Your task to perform on an android device: open app "The Home Depot" Image 0: 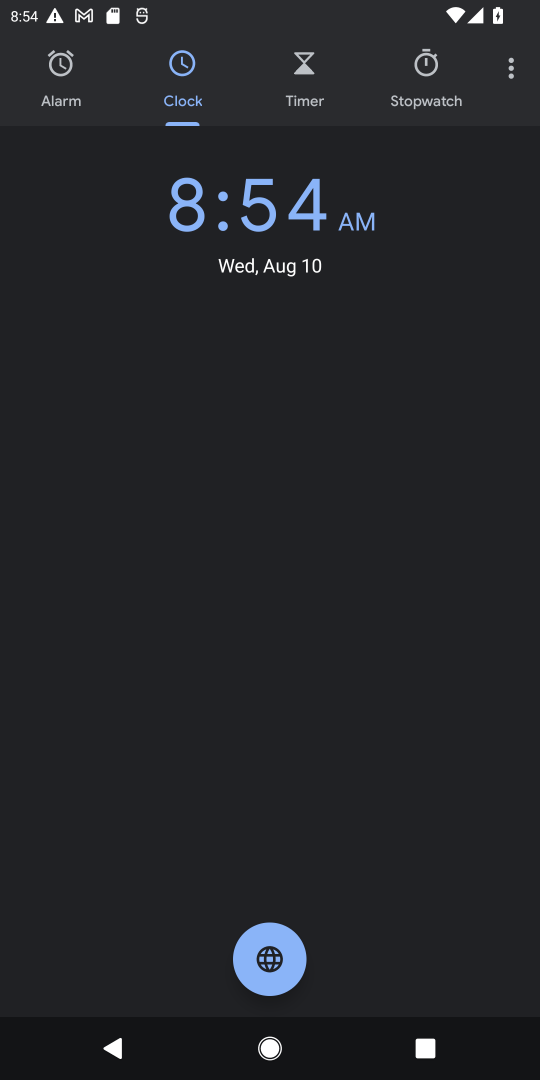
Step 0: press home button
Your task to perform on an android device: open app "The Home Depot" Image 1: 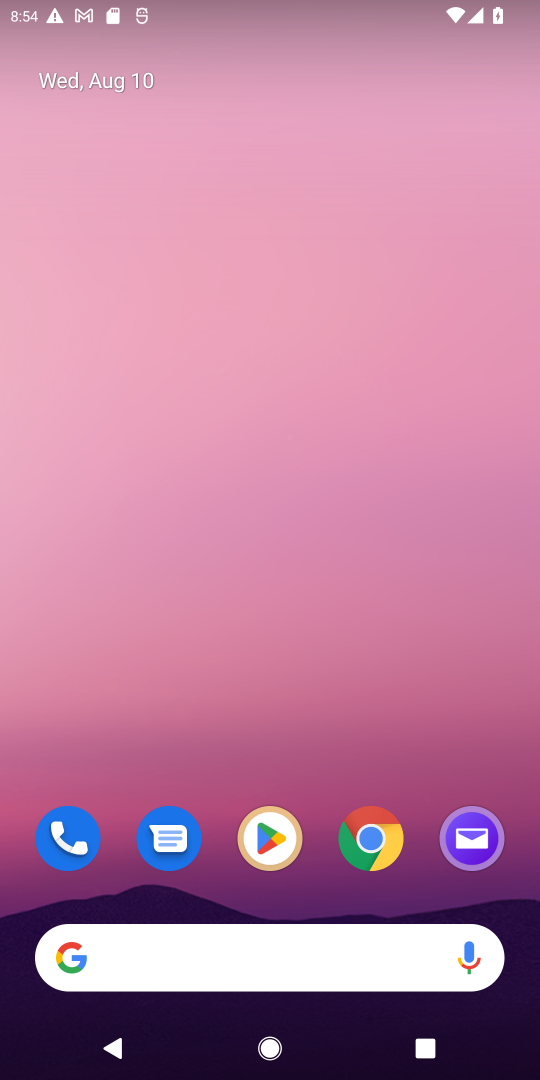
Step 1: click (265, 829)
Your task to perform on an android device: open app "The Home Depot" Image 2: 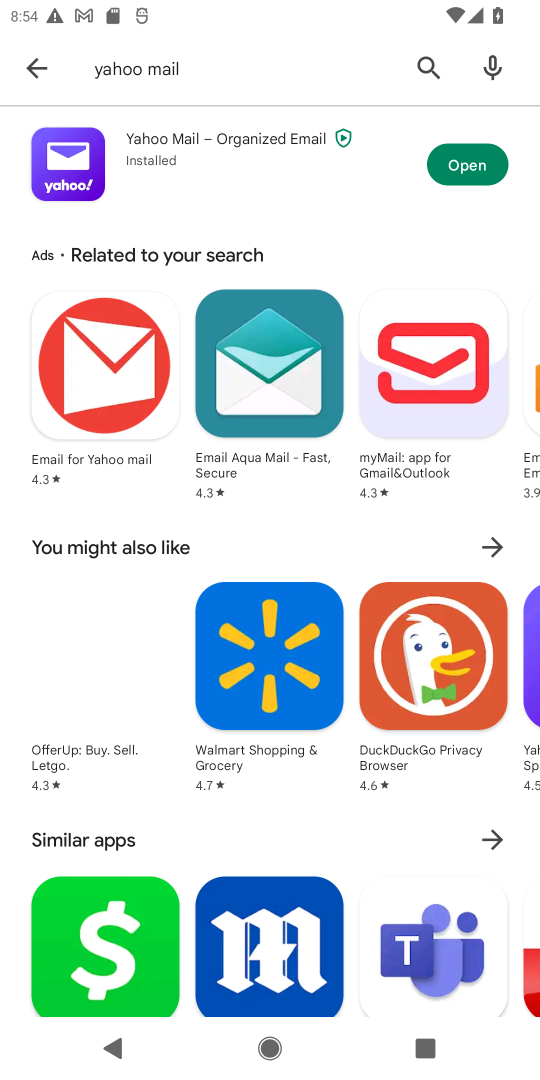
Step 2: click (426, 69)
Your task to perform on an android device: open app "The Home Depot" Image 3: 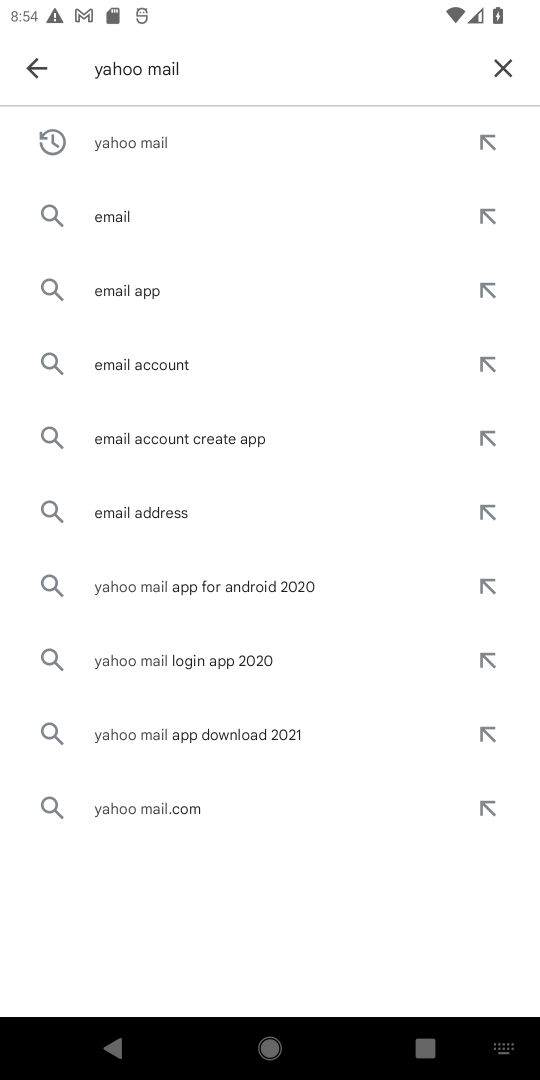
Step 3: click (505, 71)
Your task to perform on an android device: open app "The Home Depot" Image 4: 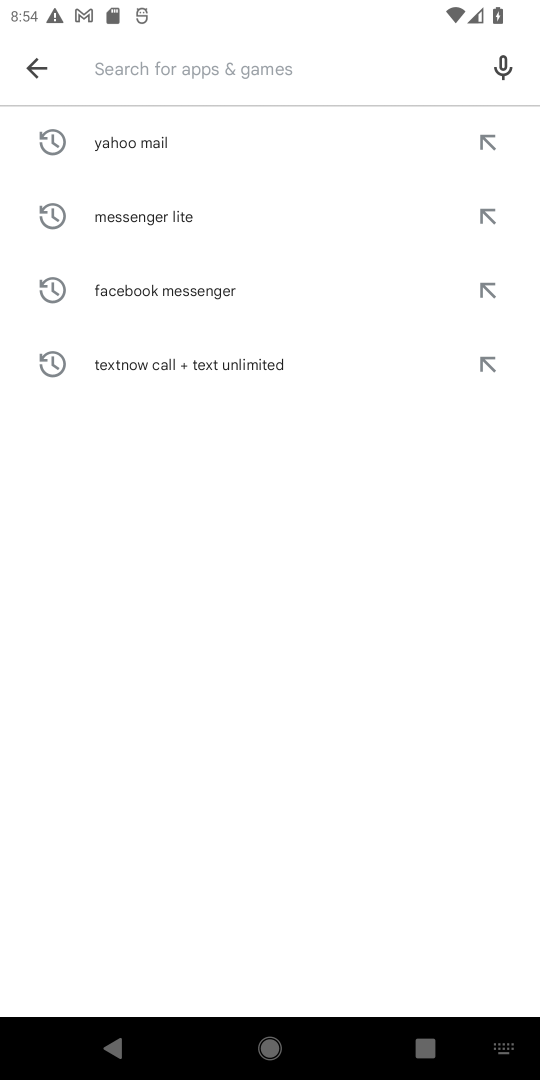
Step 4: type "The Home Depot"
Your task to perform on an android device: open app "The Home Depot" Image 5: 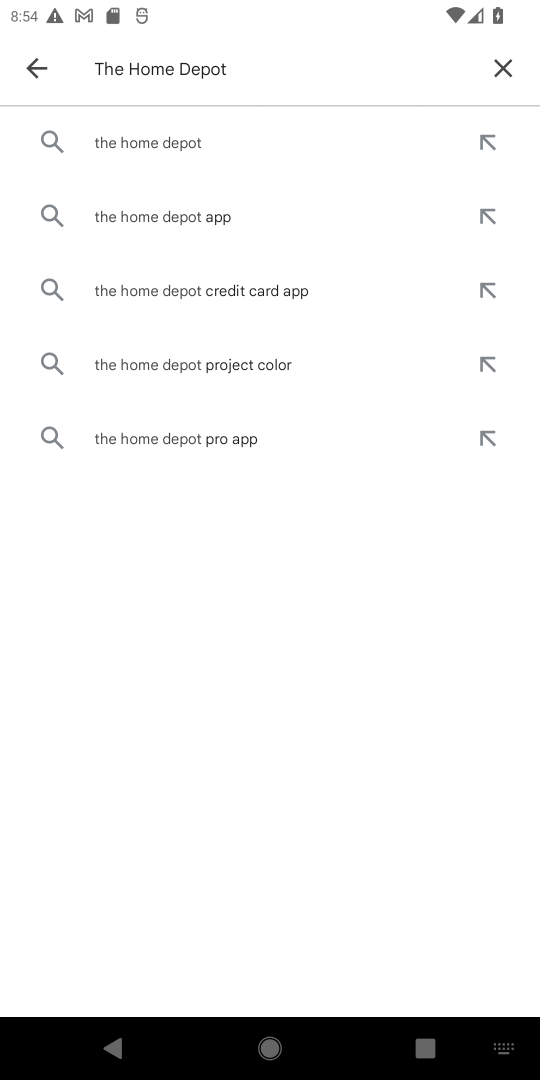
Step 5: click (204, 144)
Your task to perform on an android device: open app "The Home Depot" Image 6: 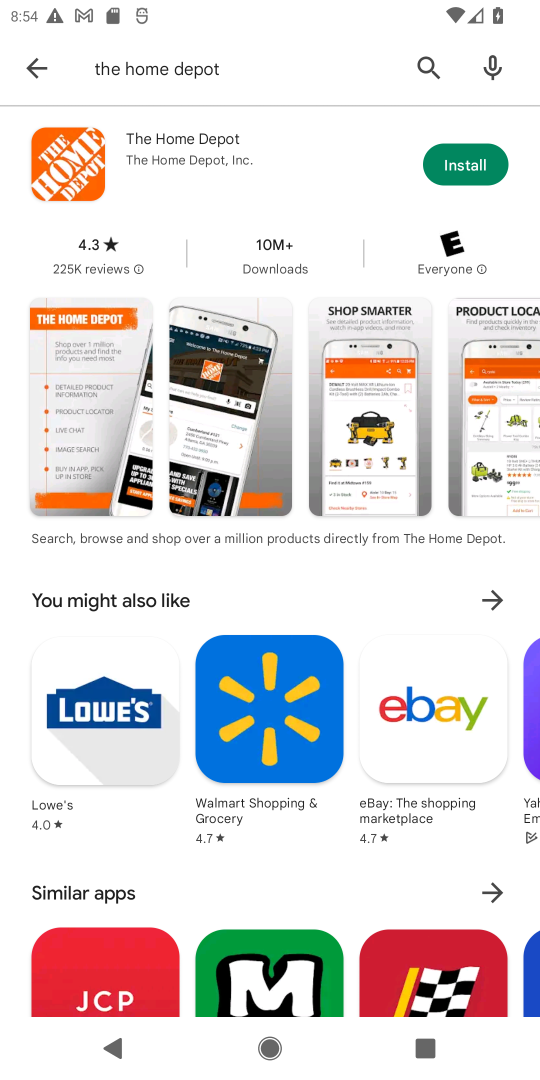
Step 6: task complete